Your task to perform on an android device: turn off airplane mode Image 0: 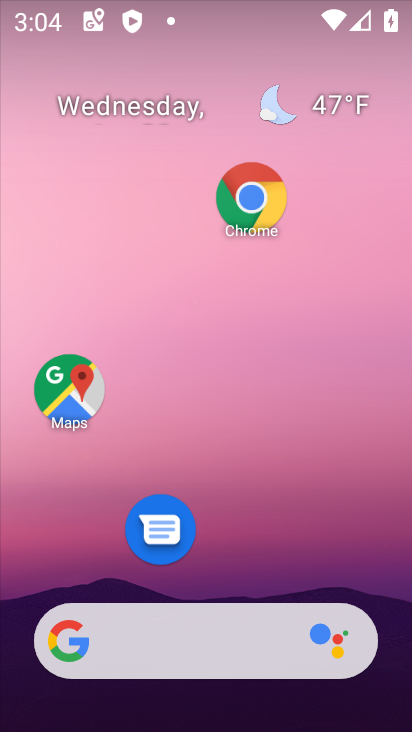
Step 0: drag from (247, 545) to (261, 11)
Your task to perform on an android device: turn off airplane mode Image 1: 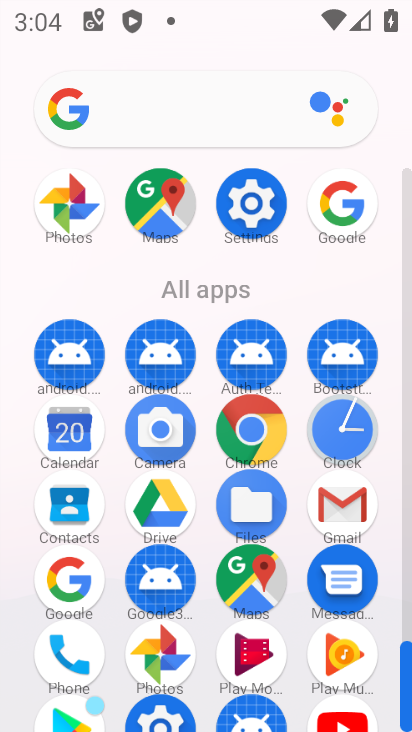
Step 1: click (254, 184)
Your task to perform on an android device: turn off airplane mode Image 2: 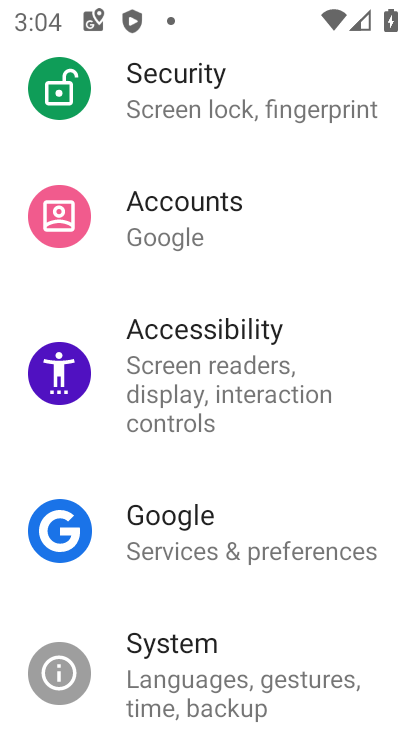
Step 2: drag from (261, 178) to (268, 707)
Your task to perform on an android device: turn off airplane mode Image 3: 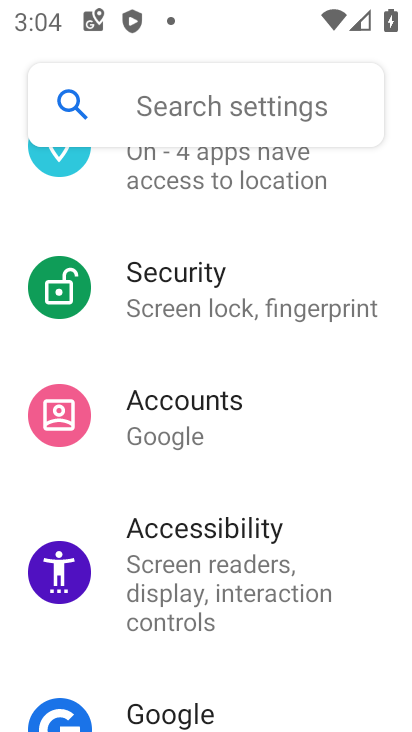
Step 3: drag from (249, 193) to (226, 688)
Your task to perform on an android device: turn off airplane mode Image 4: 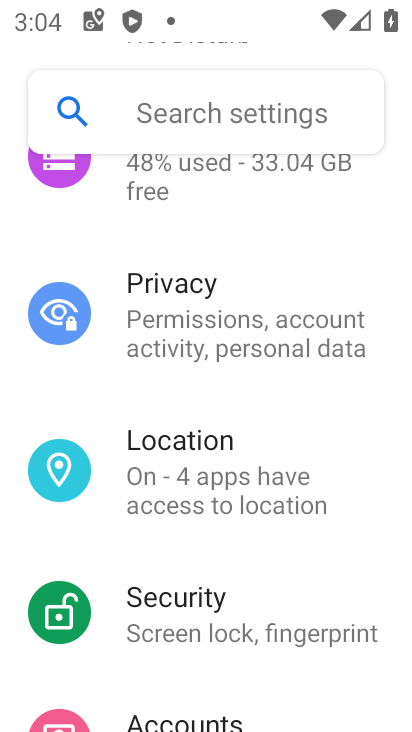
Step 4: drag from (233, 310) to (233, 696)
Your task to perform on an android device: turn off airplane mode Image 5: 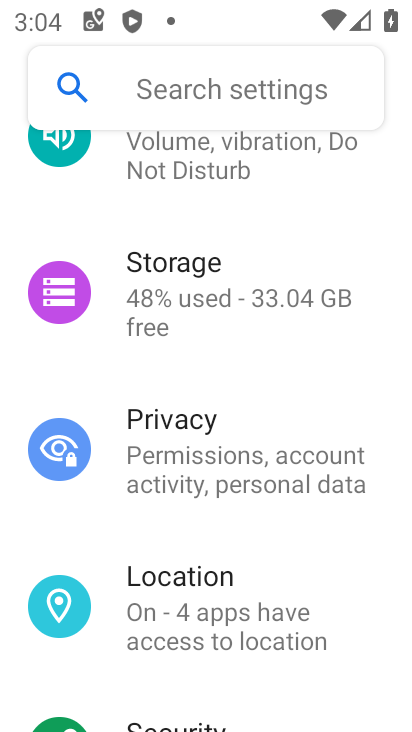
Step 5: drag from (256, 313) to (252, 681)
Your task to perform on an android device: turn off airplane mode Image 6: 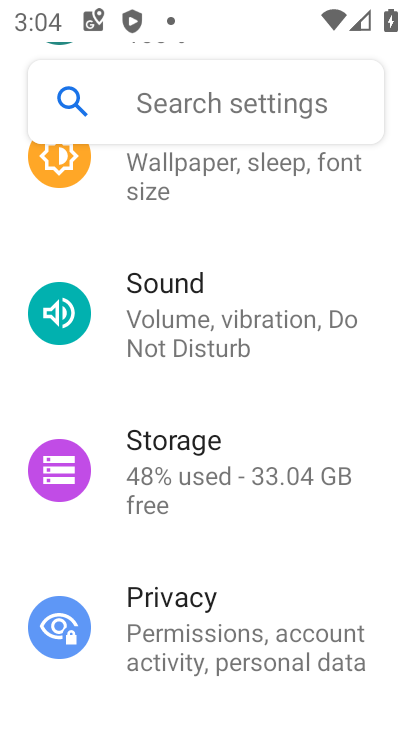
Step 6: drag from (284, 256) to (212, 697)
Your task to perform on an android device: turn off airplane mode Image 7: 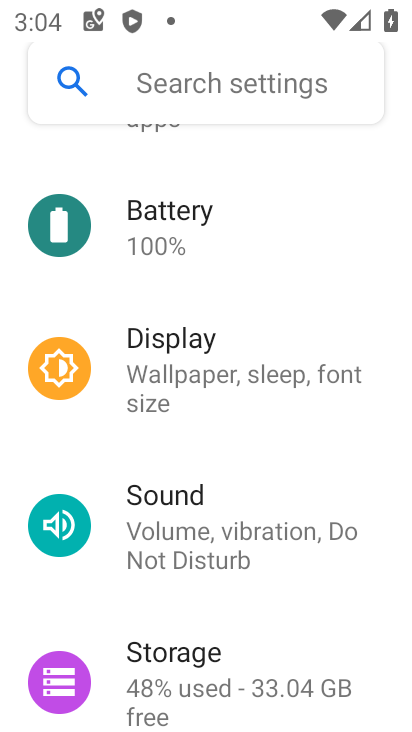
Step 7: drag from (243, 303) to (180, 709)
Your task to perform on an android device: turn off airplane mode Image 8: 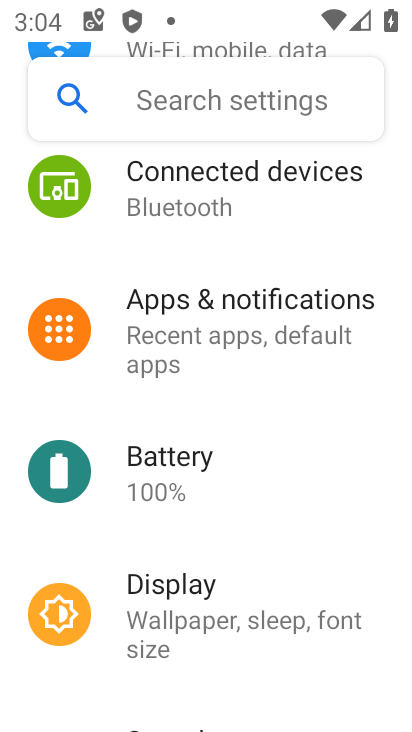
Step 8: drag from (220, 298) to (209, 723)
Your task to perform on an android device: turn off airplane mode Image 9: 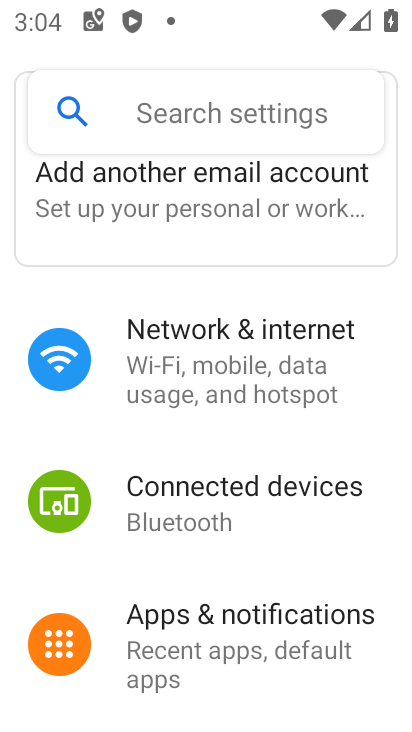
Step 9: click (243, 356)
Your task to perform on an android device: turn off airplane mode Image 10: 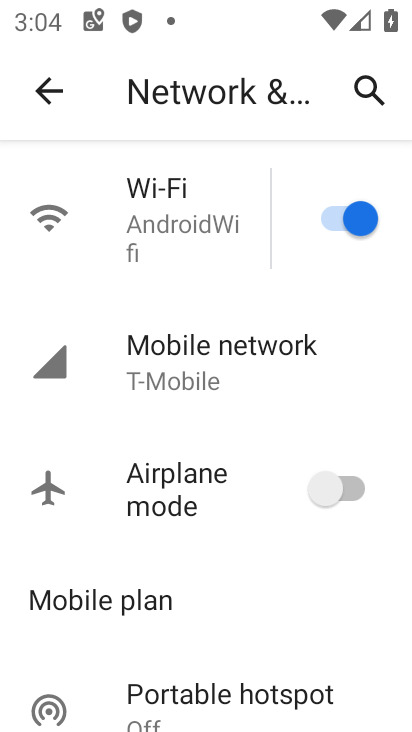
Step 10: task complete